Your task to perform on an android device: Show me popular videos on Youtube Image 0: 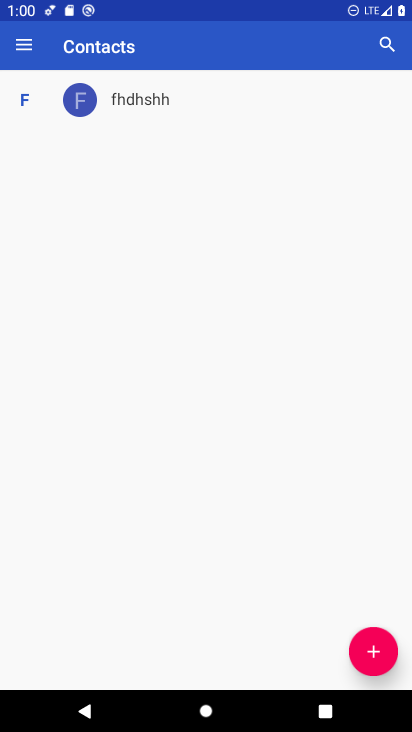
Step 0: press home button
Your task to perform on an android device: Show me popular videos on Youtube Image 1: 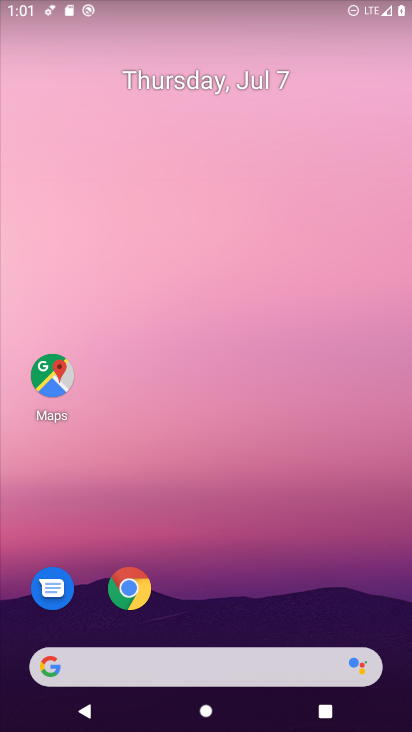
Step 1: drag from (150, 596) to (197, 91)
Your task to perform on an android device: Show me popular videos on Youtube Image 2: 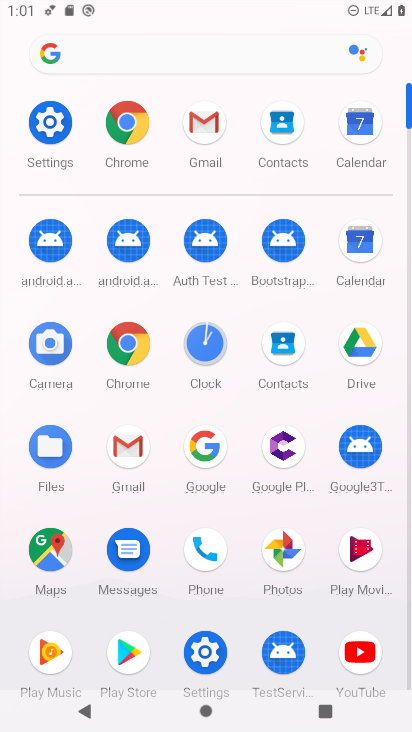
Step 2: drag from (321, 570) to (319, 231)
Your task to perform on an android device: Show me popular videos on Youtube Image 3: 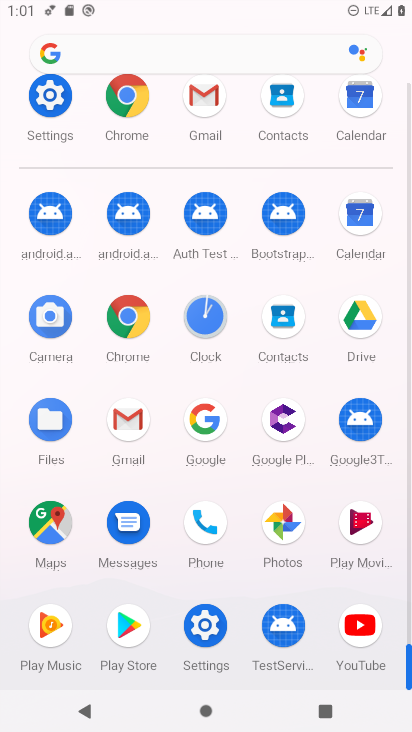
Step 3: click (367, 622)
Your task to perform on an android device: Show me popular videos on Youtube Image 4: 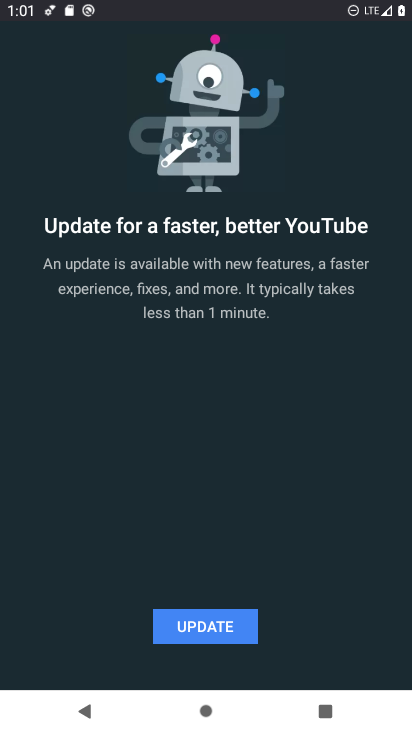
Step 4: click (238, 619)
Your task to perform on an android device: Show me popular videos on Youtube Image 5: 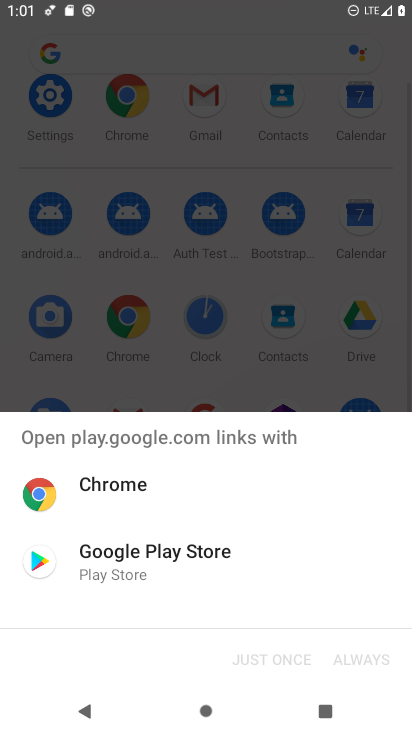
Step 5: click (206, 575)
Your task to perform on an android device: Show me popular videos on Youtube Image 6: 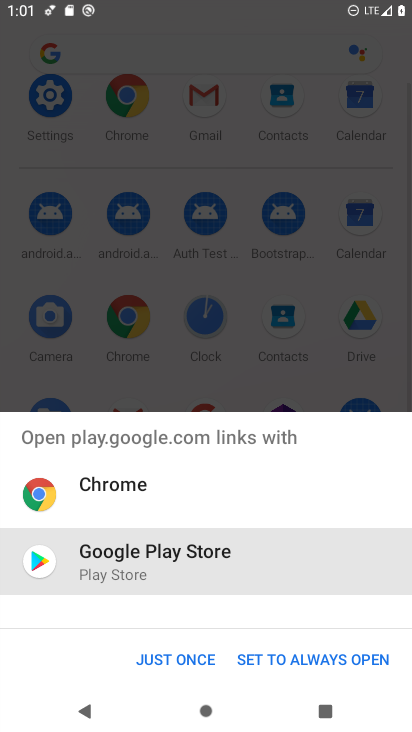
Step 6: click (195, 662)
Your task to perform on an android device: Show me popular videos on Youtube Image 7: 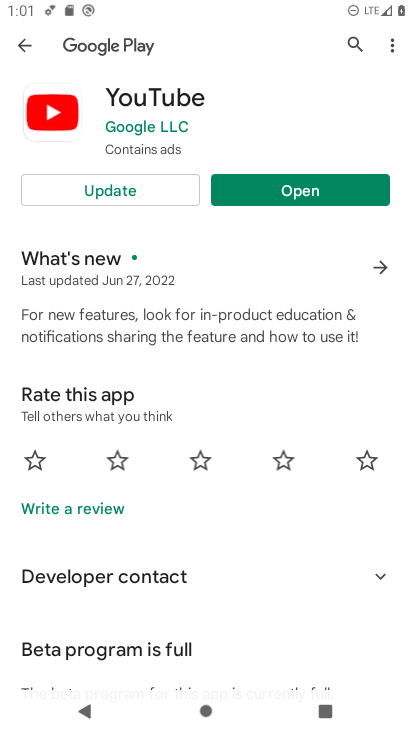
Step 7: click (150, 193)
Your task to perform on an android device: Show me popular videos on Youtube Image 8: 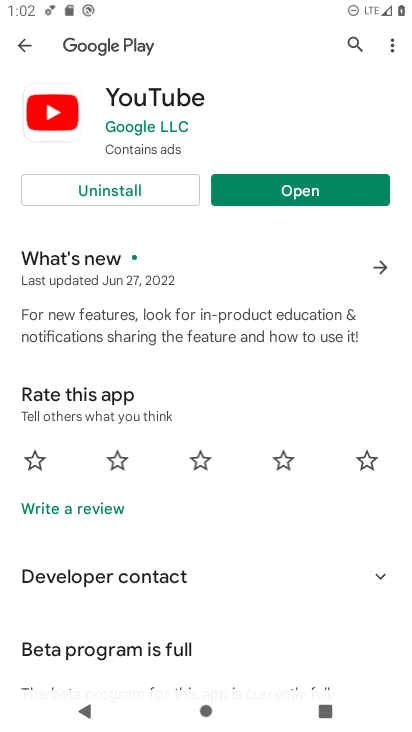
Step 8: click (286, 186)
Your task to perform on an android device: Show me popular videos on Youtube Image 9: 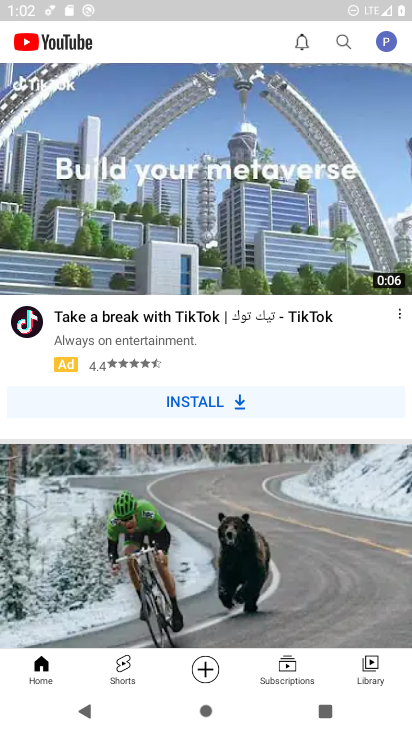
Step 9: task complete